Your task to perform on an android device: turn smart compose on in the gmail app Image 0: 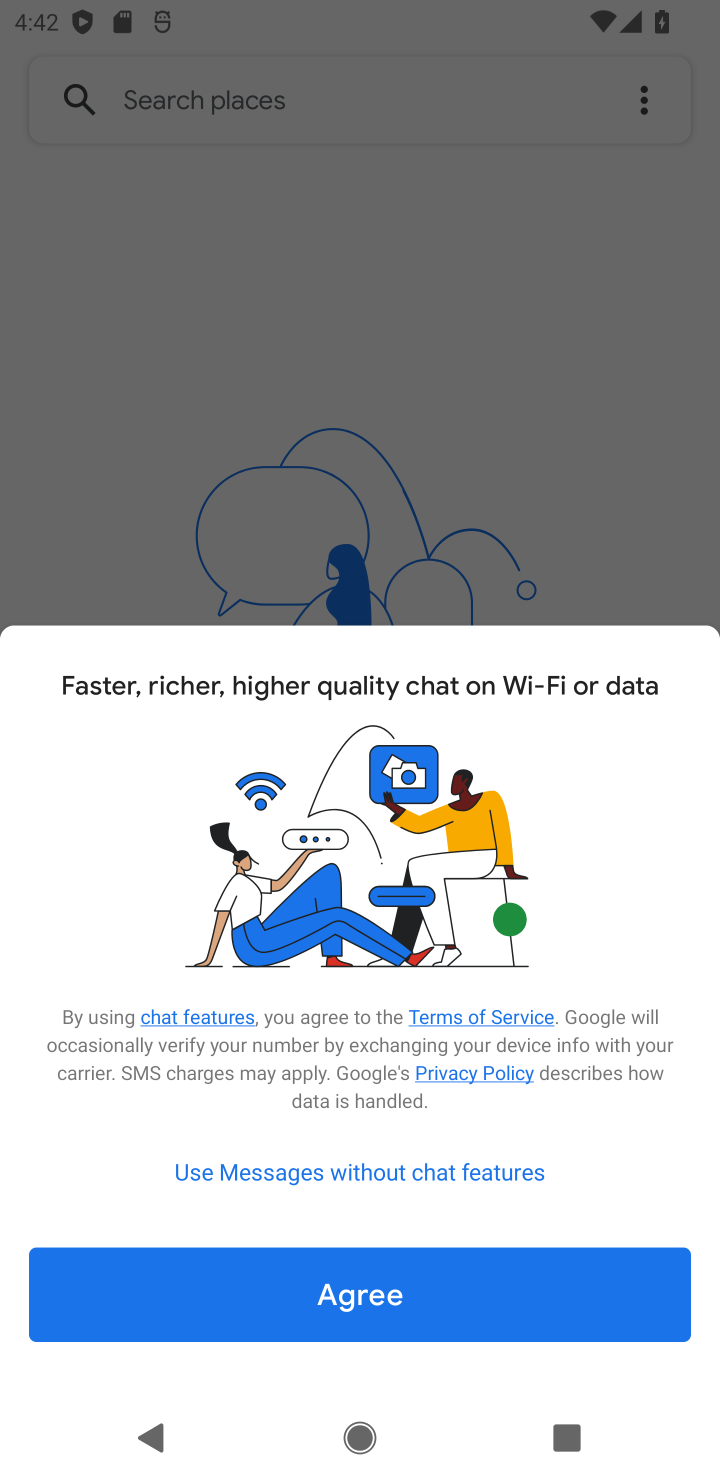
Step 0: press home button
Your task to perform on an android device: turn smart compose on in the gmail app Image 1: 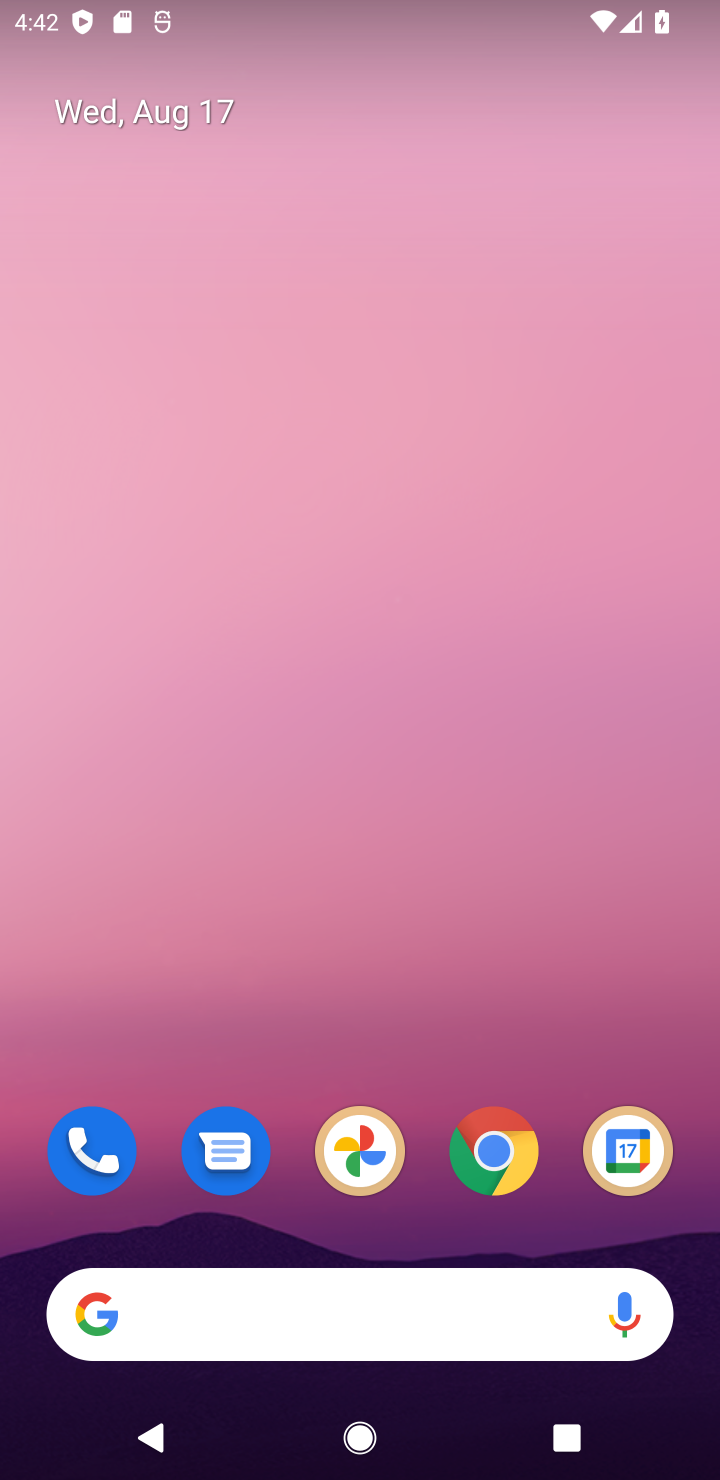
Step 1: drag from (422, 1231) to (491, 149)
Your task to perform on an android device: turn smart compose on in the gmail app Image 2: 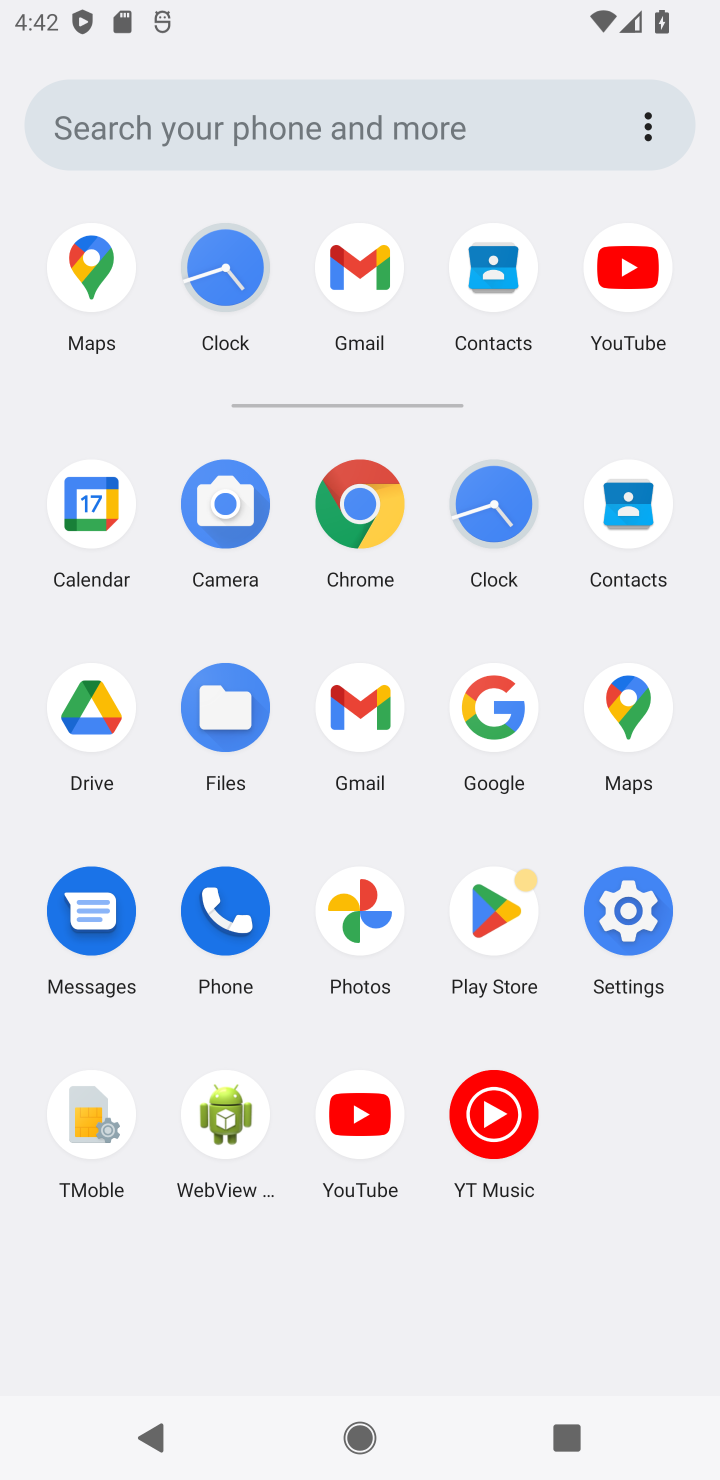
Step 2: click (346, 303)
Your task to perform on an android device: turn smart compose on in the gmail app Image 3: 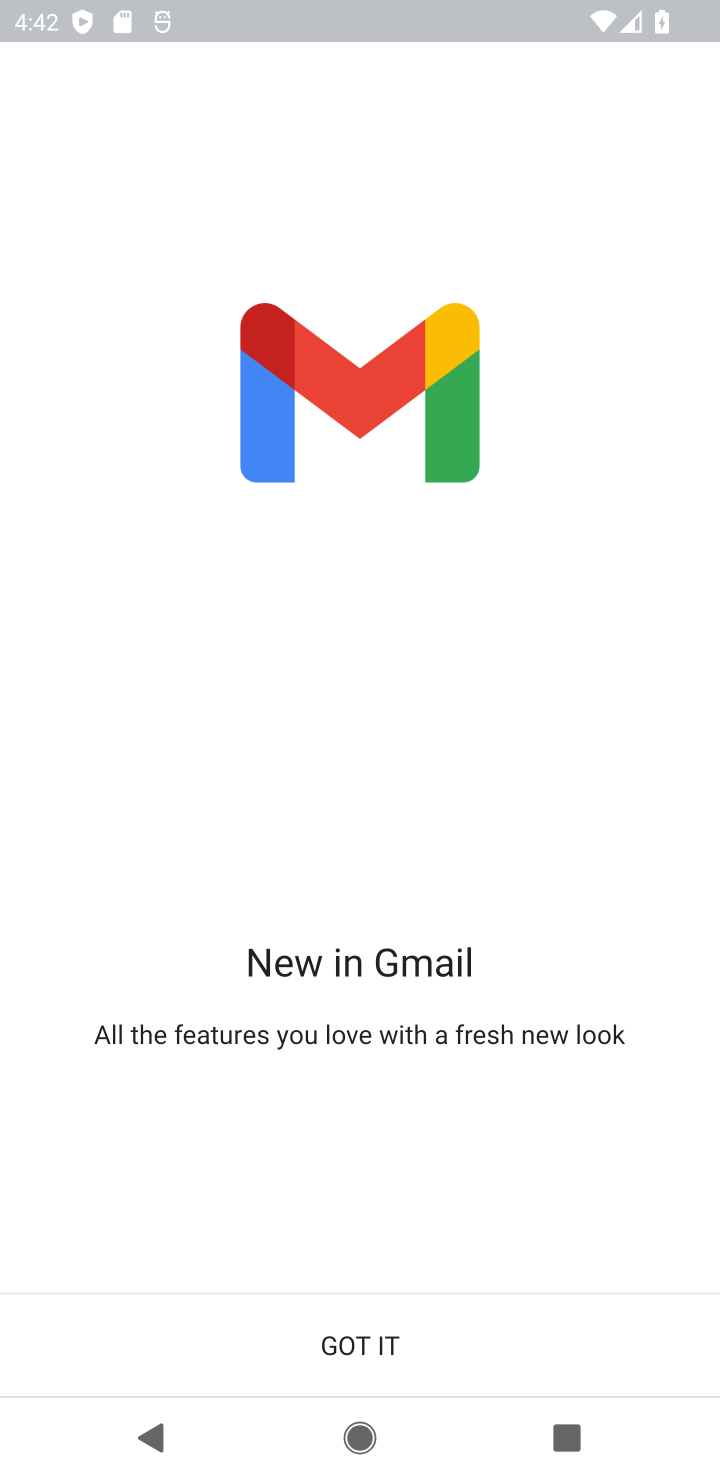
Step 3: click (330, 1368)
Your task to perform on an android device: turn smart compose on in the gmail app Image 4: 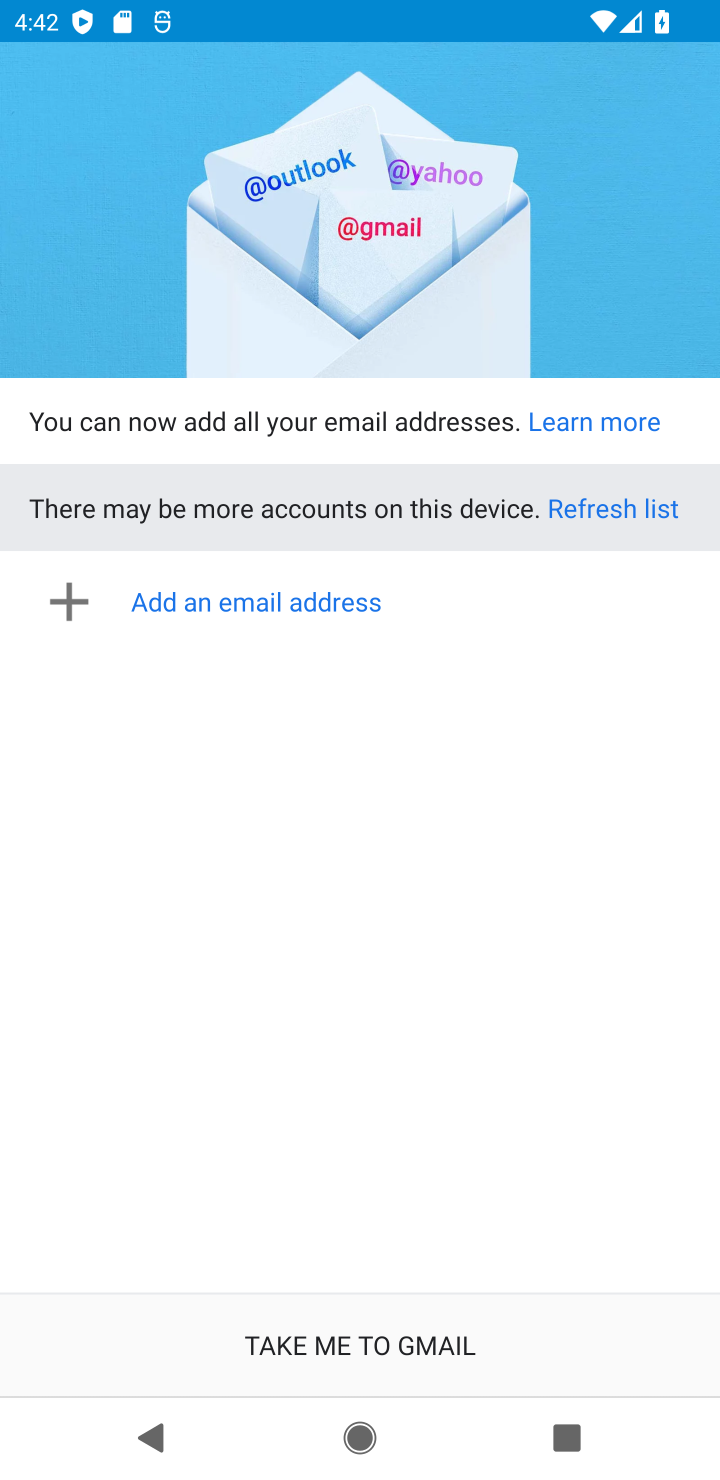
Step 4: click (330, 1368)
Your task to perform on an android device: turn smart compose on in the gmail app Image 5: 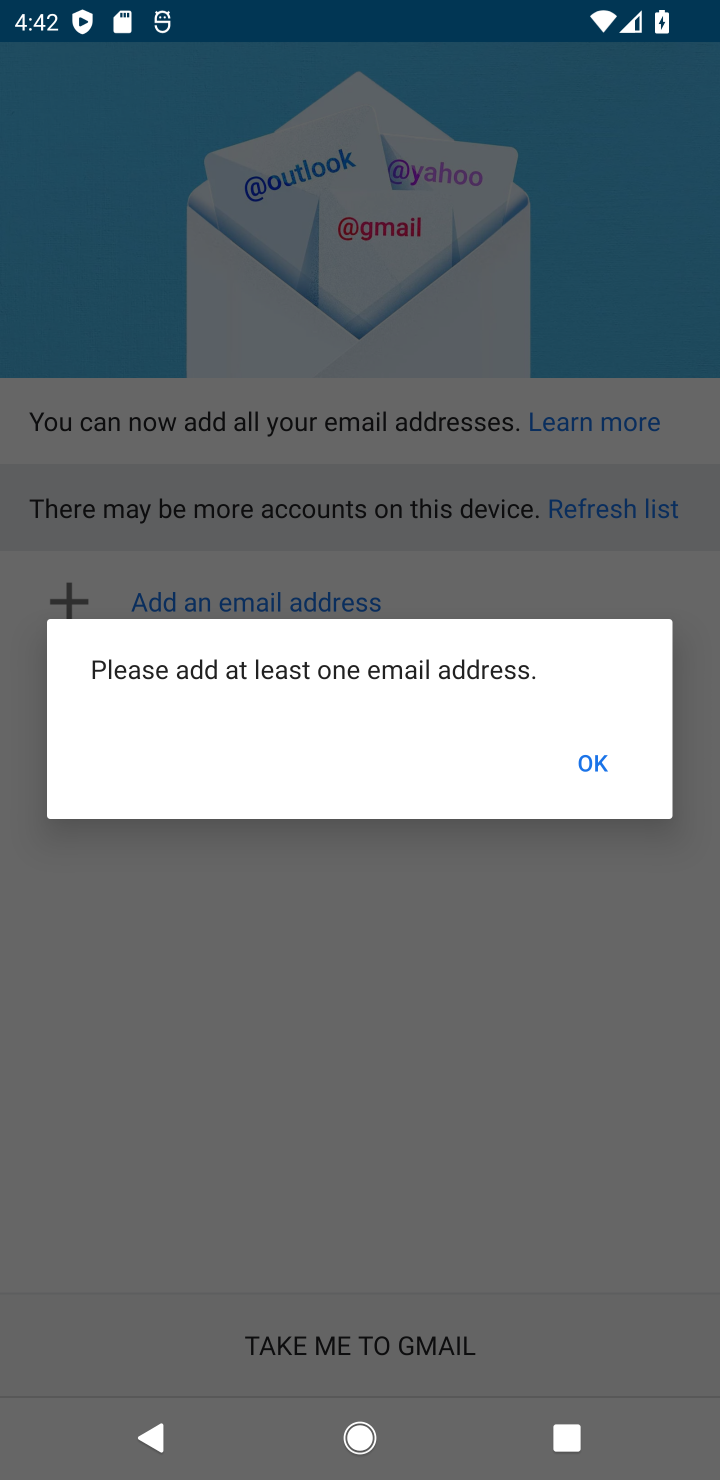
Step 5: task complete